Your task to perform on an android device: add a contact Image 0: 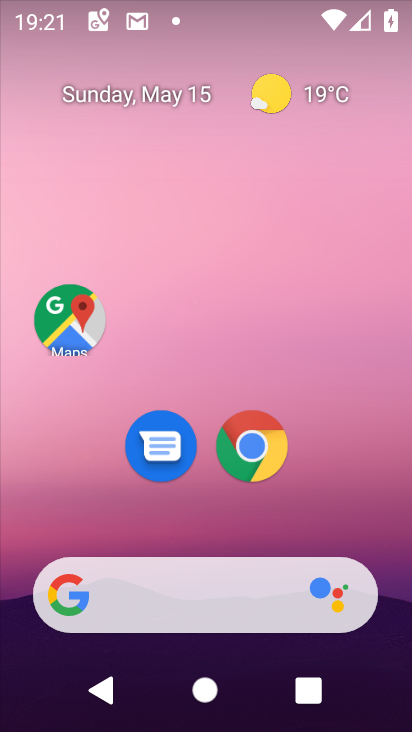
Step 0: drag from (269, 630) to (175, 192)
Your task to perform on an android device: add a contact Image 1: 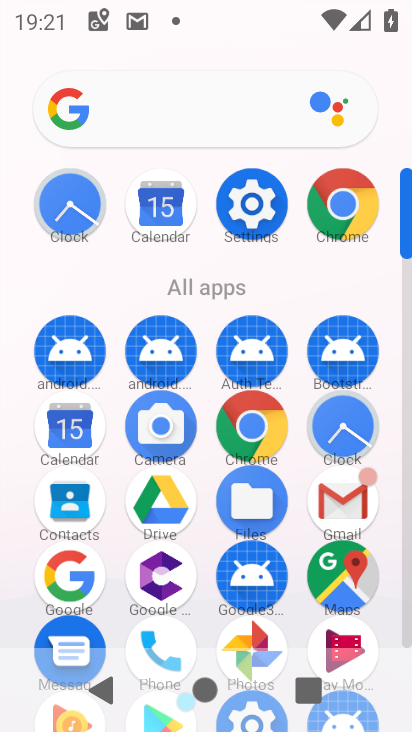
Step 1: click (157, 630)
Your task to perform on an android device: add a contact Image 2: 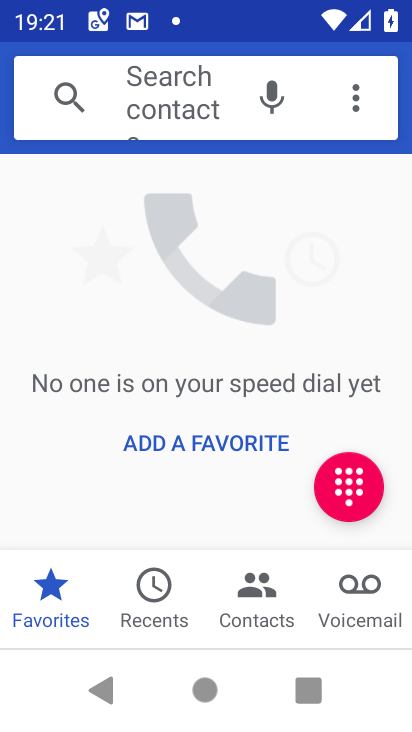
Step 2: click (237, 608)
Your task to perform on an android device: add a contact Image 3: 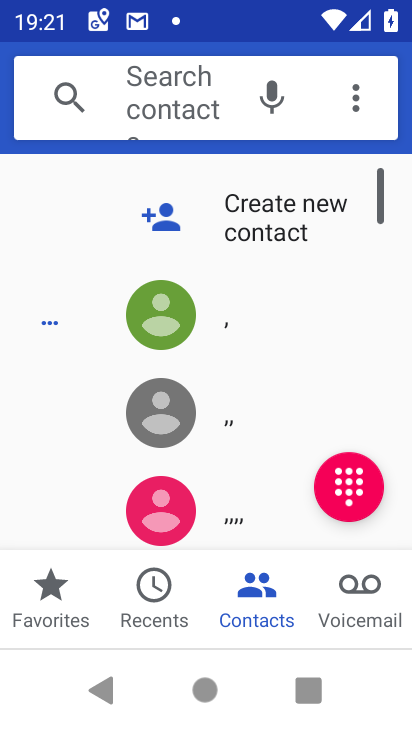
Step 3: click (267, 221)
Your task to perform on an android device: add a contact Image 4: 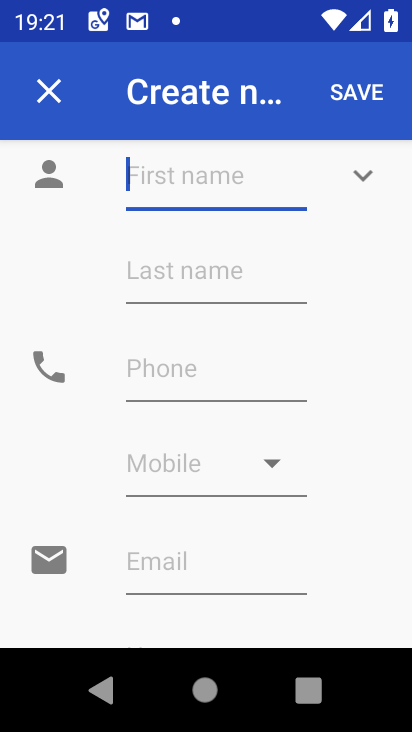
Step 4: click (206, 172)
Your task to perform on an android device: add a contact Image 5: 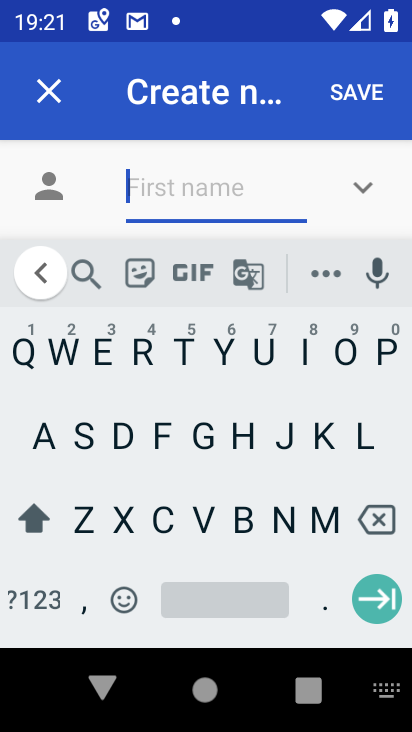
Step 5: click (181, 354)
Your task to perform on an android device: add a contact Image 6: 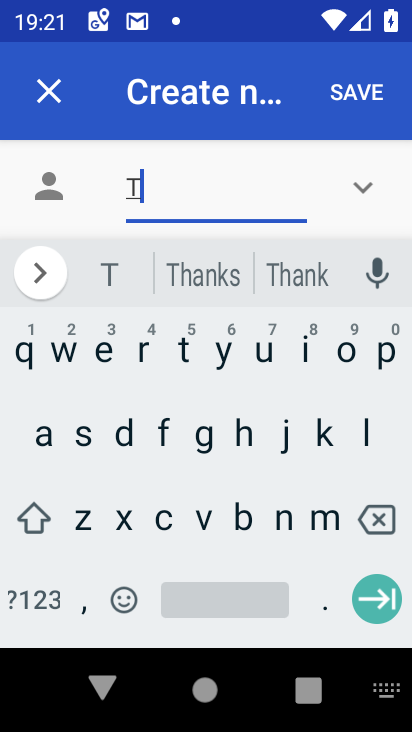
Step 6: click (247, 430)
Your task to perform on an android device: add a contact Image 7: 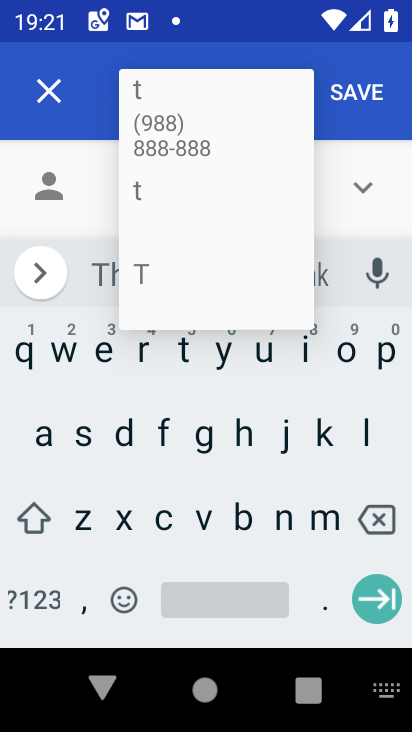
Step 7: click (337, 435)
Your task to perform on an android device: add a contact Image 8: 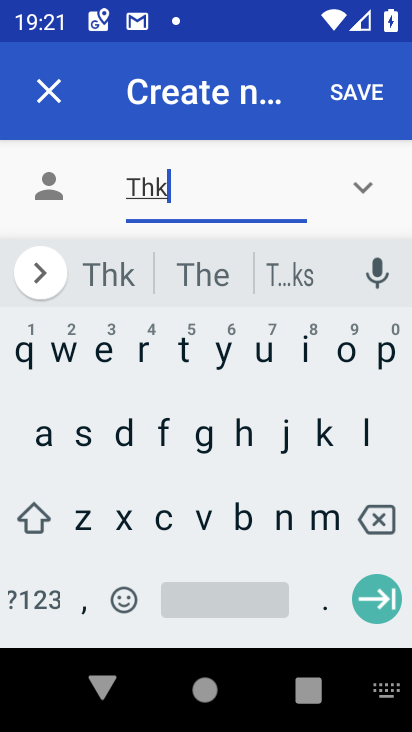
Step 8: drag from (217, 201) to (223, 118)
Your task to perform on an android device: add a contact Image 9: 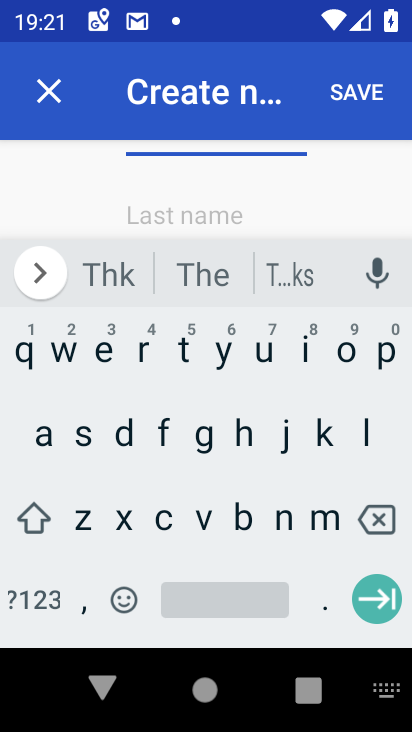
Step 9: drag from (178, 206) to (201, 127)
Your task to perform on an android device: add a contact Image 10: 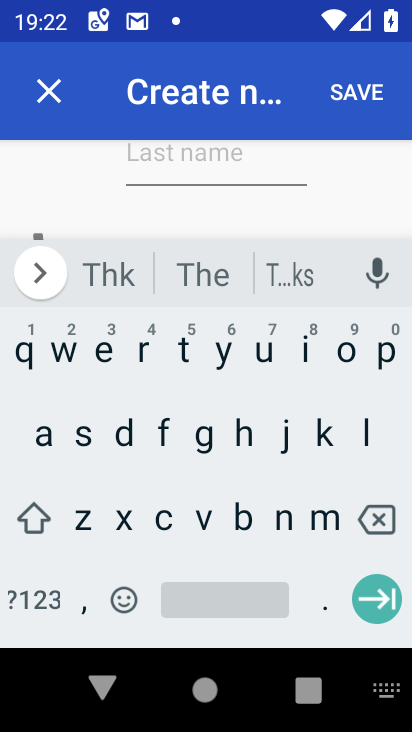
Step 10: click (157, 226)
Your task to perform on an android device: add a contact Image 11: 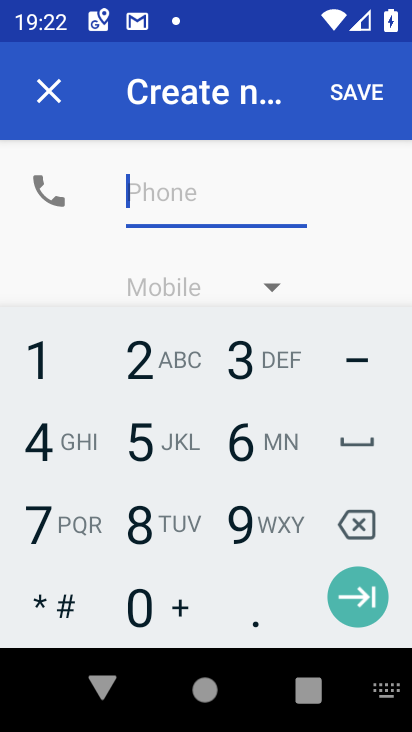
Step 11: click (143, 444)
Your task to perform on an android device: add a contact Image 12: 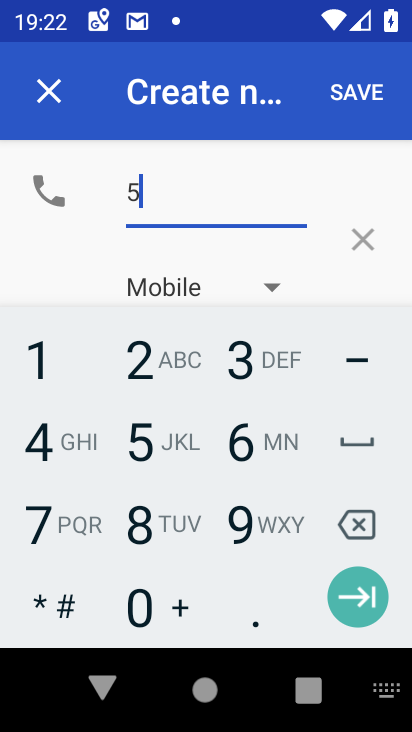
Step 12: click (141, 502)
Your task to perform on an android device: add a contact Image 13: 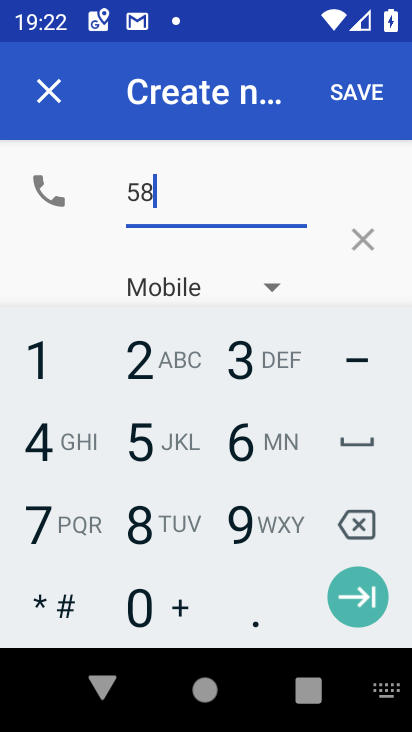
Step 13: click (52, 434)
Your task to perform on an android device: add a contact Image 14: 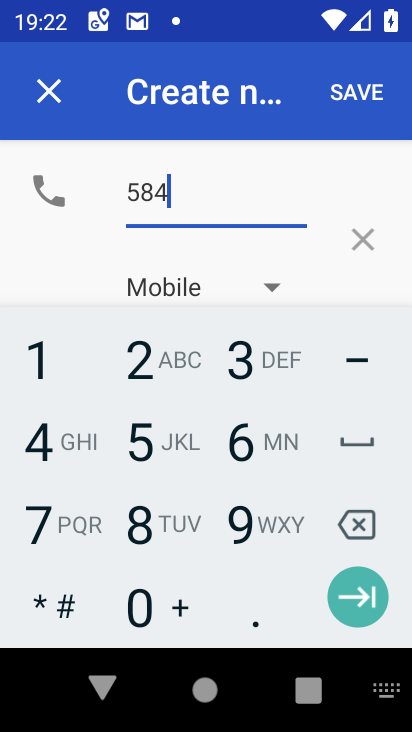
Step 14: click (68, 504)
Your task to perform on an android device: add a contact Image 15: 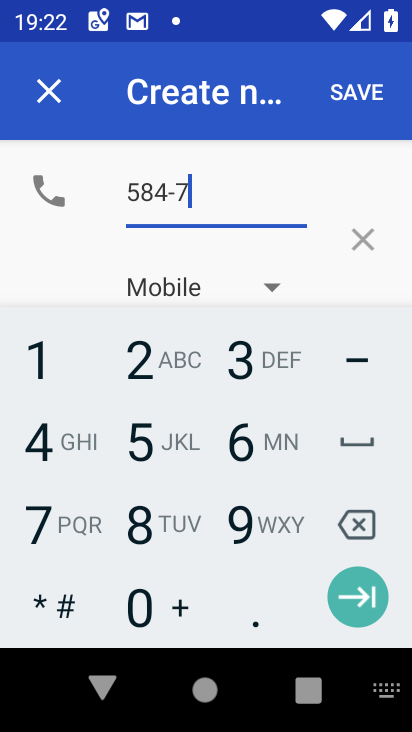
Step 15: click (265, 508)
Your task to perform on an android device: add a contact Image 16: 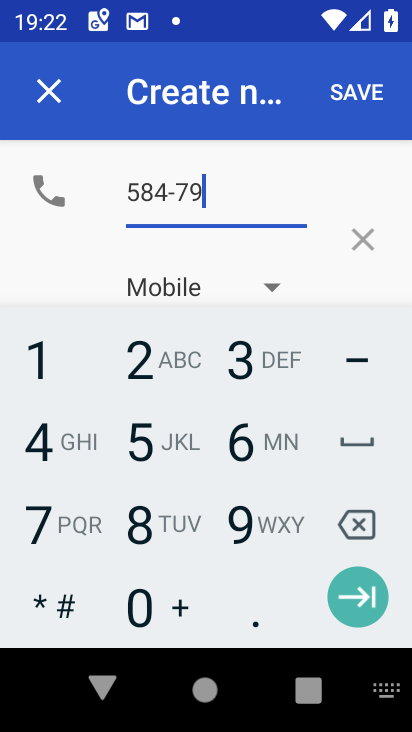
Step 16: click (253, 436)
Your task to perform on an android device: add a contact Image 17: 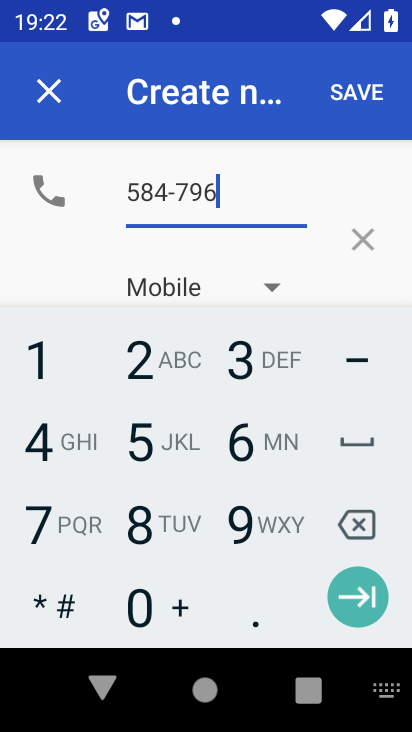
Step 17: click (191, 445)
Your task to perform on an android device: add a contact Image 18: 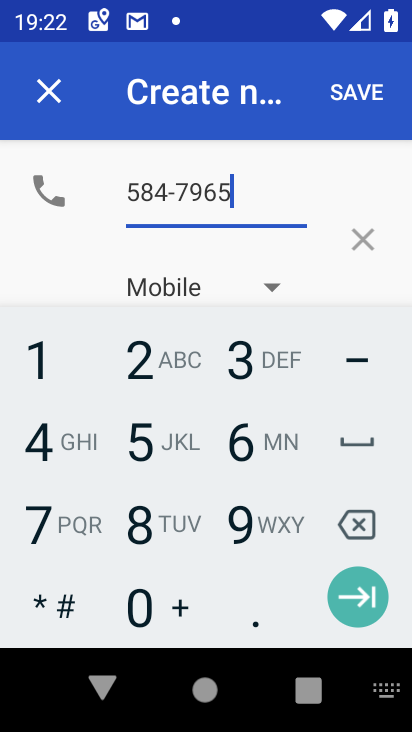
Step 18: click (59, 446)
Your task to perform on an android device: add a contact Image 19: 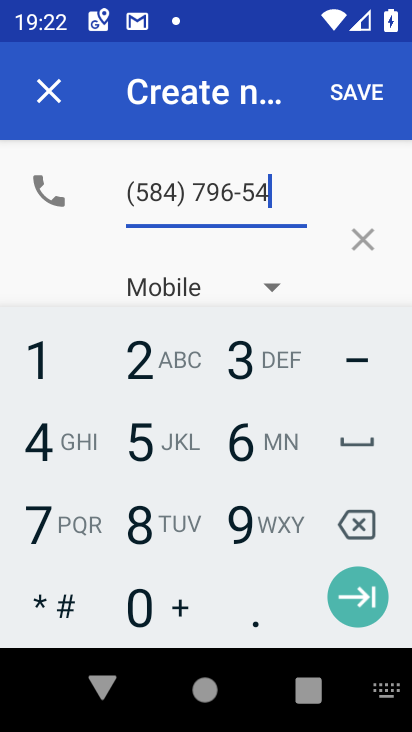
Step 19: click (344, 98)
Your task to perform on an android device: add a contact Image 20: 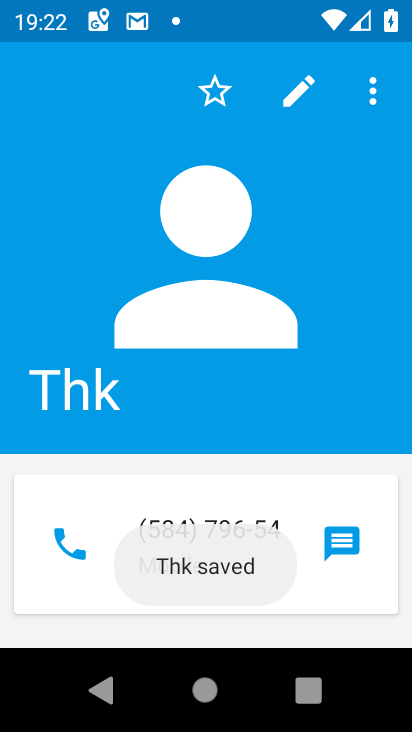
Step 20: task complete